Your task to perform on an android device: Open Google Maps and go to "Timeline" Image 0: 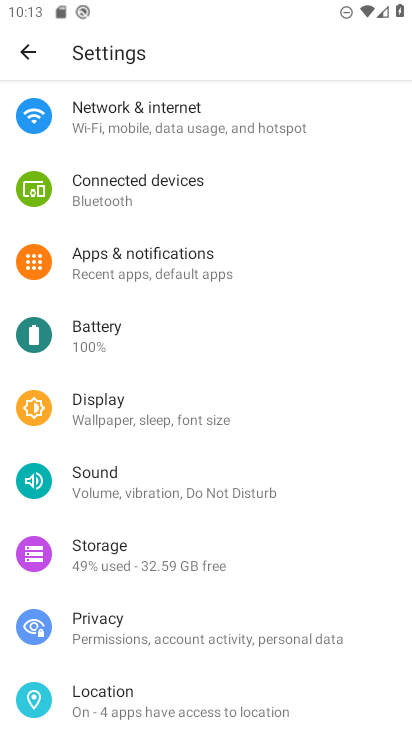
Step 0: press home button
Your task to perform on an android device: Open Google Maps and go to "Timeline" Image 1: 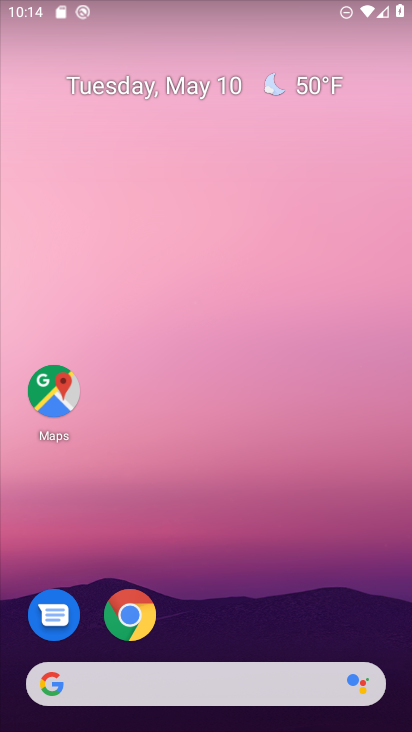
Step 1: click (54, 392)
Your task to perform on an android device: Open Google Maps and go to "Timeline" Image 2: 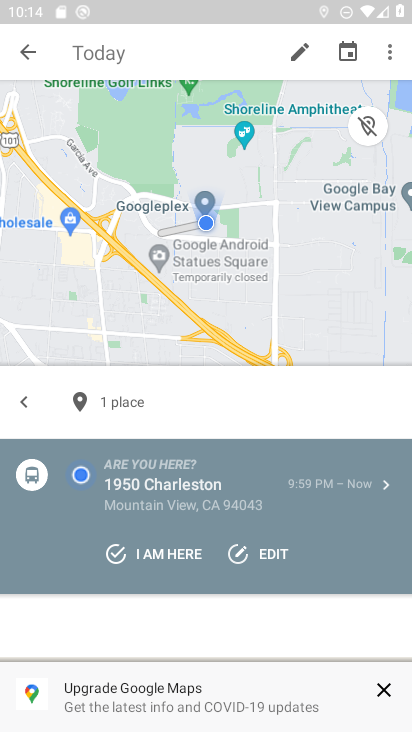
Step 2: press back button
Your task to perform on an android device: Open Google Maps and go to "Timeline" Image 3: 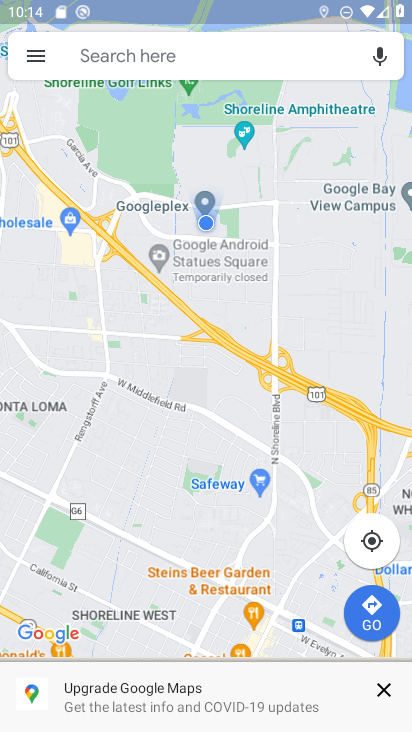
Step 3: click (34, 55)
Your task to perform on an android device: Open Google Maps and go to "Timeline" Image 4: 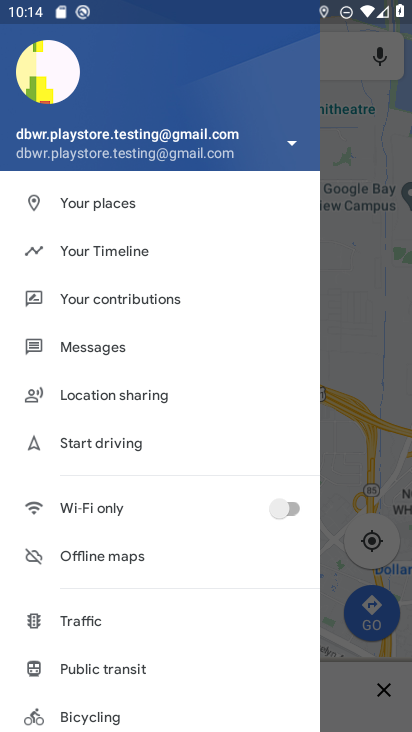
Step 4: click (101, 243)
Your task to perform on an android device: Open Google Maps and go to "Timeline" Image 5: 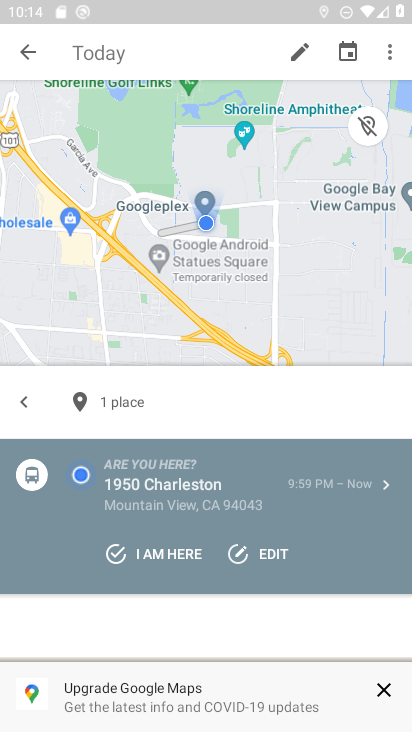
Step 5: task complete